Your task to perform on an android device: What's the weather going to be this weekend? Image 0: 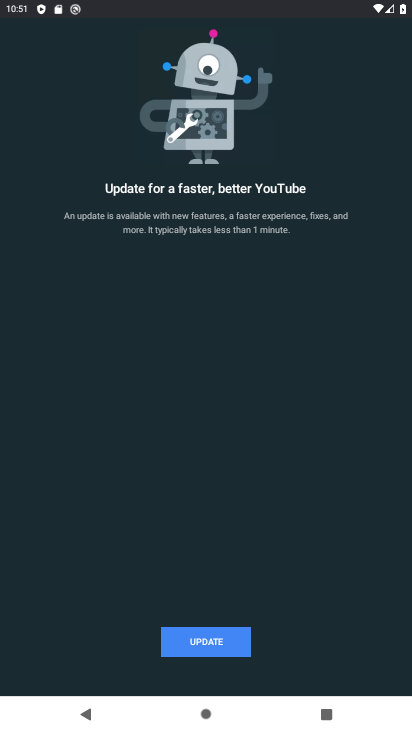
Step 0: press home button
Your task to perform on an android device: What's the weather going to be this weekend? Image 1: 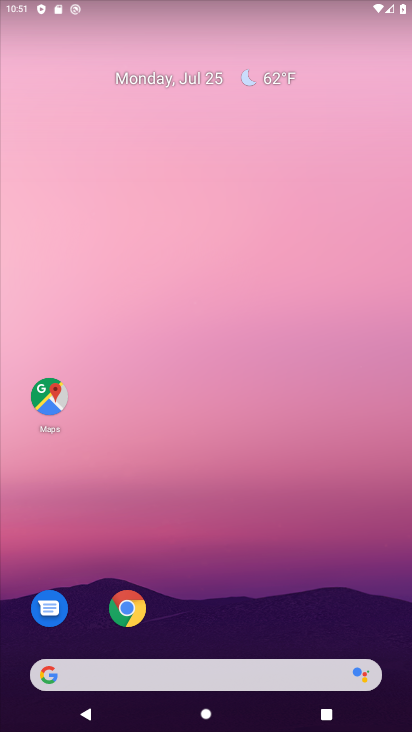
Step 1: drag from (227, 664) to (178, 221)
Your task to perform on an android device: What's the weather going to be this weekend? Image 2: 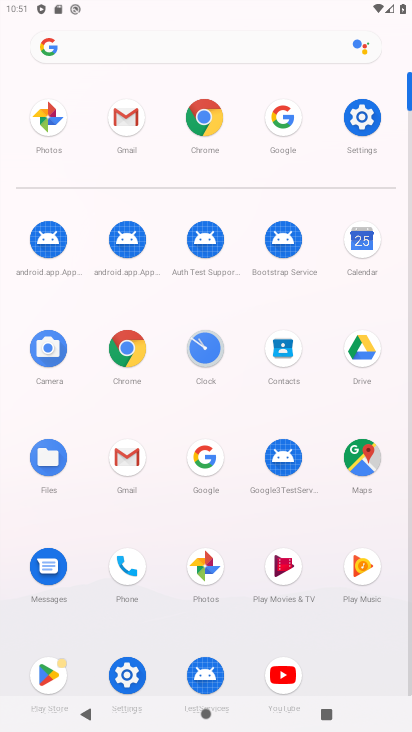
Step 2: click (201, 467)
Your task to perform on an android device: What's the weather going to be this weekend? Image 3: 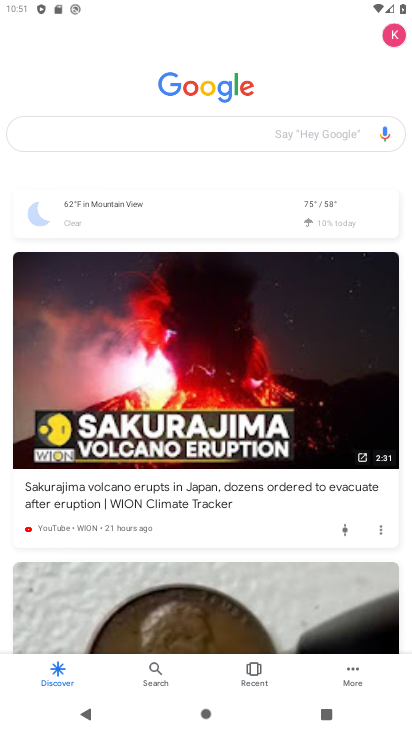
Step 3: click (106, 131)
Your task to perform on an android device: What's the weather going to be this weekend? Image 4: 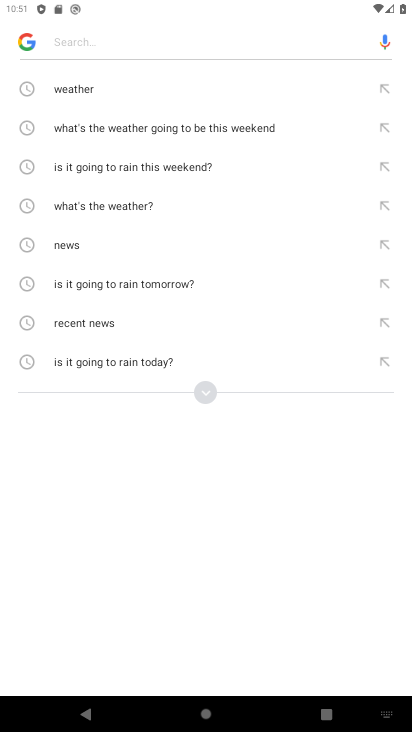
Step 4: click (178, 124)
Your task to perform on an android device: What's the weather going to be this weekend? Image 5: 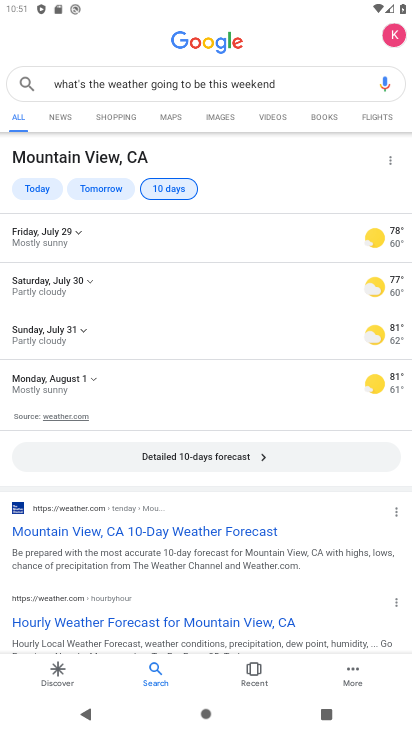
Step 5: click (229, 453)
Your task to perform on an android device: What's the weather going to be this weekend? Image 6: 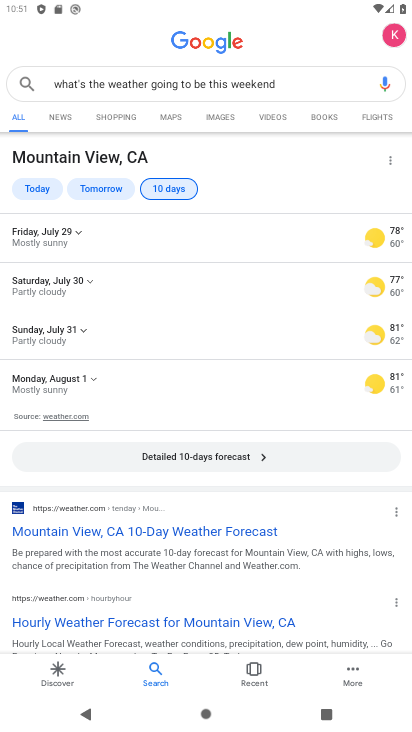
Step 6: task complete